Your task to perform on an android device: change keyboard looks Image 0: 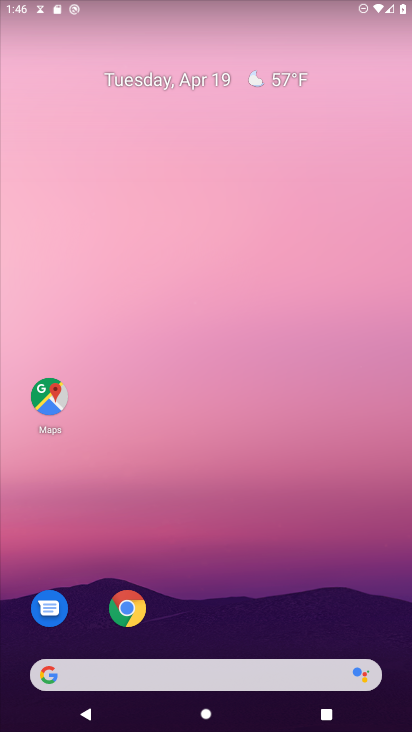
Step 0: drag from (192, 596) to (141, 55)
Your task to perform on an android device: change keyboard looks Image 1: 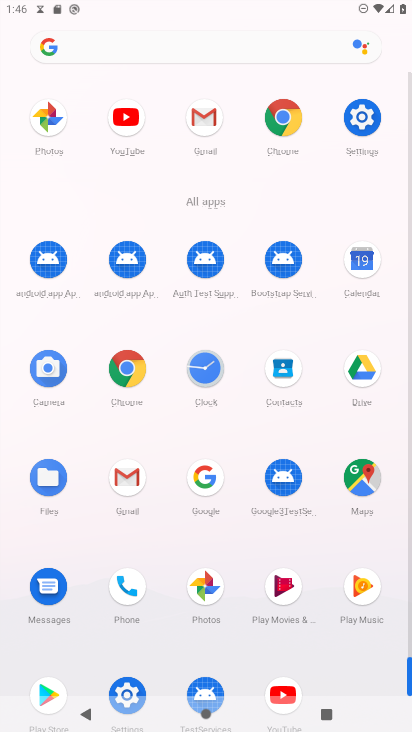
Step 1: click (359, 103)
Your task to perform on an android device: change keyboard looks Image 2: 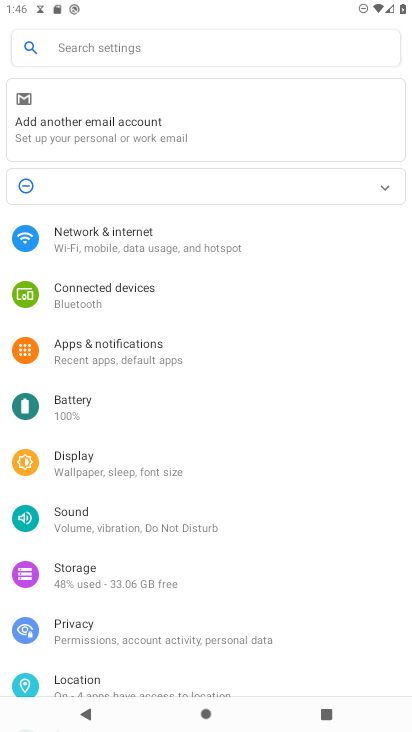
Step 2: drag from (148, 552) to (162, 126)
Your task to perform on an android device: change keyboard looks Image 3: 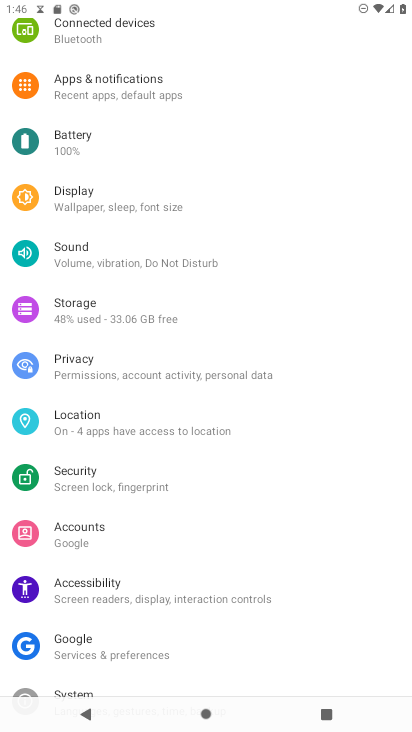
Step 3: drag from (158, 645) to (132, 347)
Your task to perform on an android device: change keyboard looks Image 4: 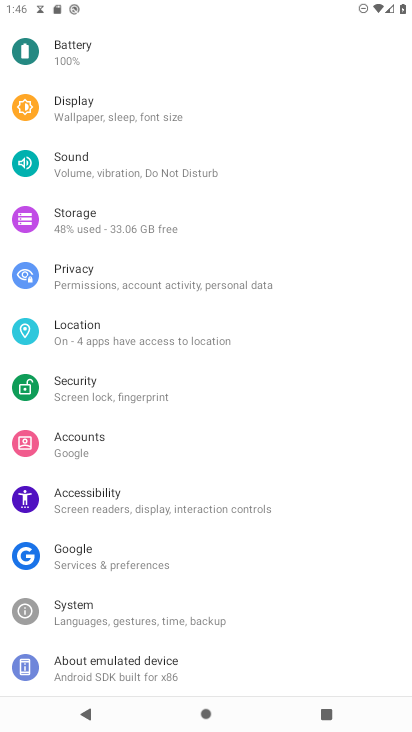
Step 4: click (112, 617)
Your task to perform on an android device: change keyboard looks Image 5: 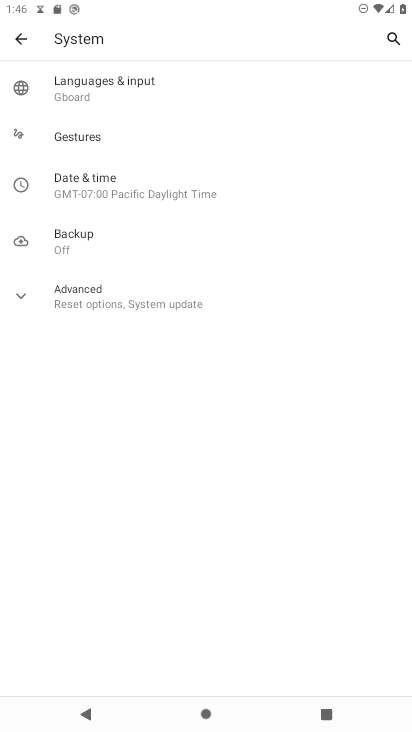
Step 5: click (87, 87)
Your task to perform on an android device: change keyboard looks Image 6: 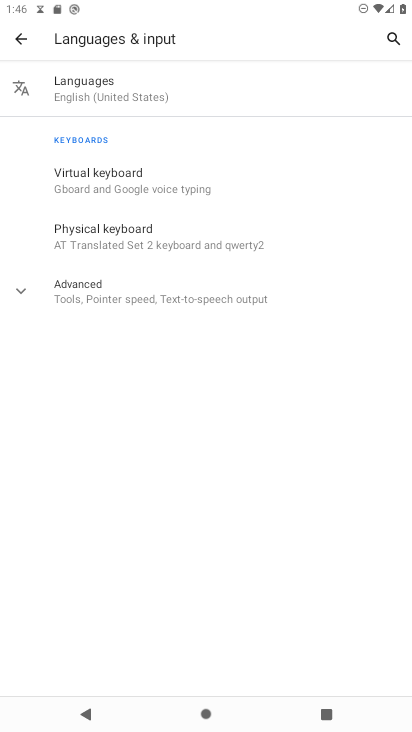
Step 6: click (89, 185)
Your task to perform on an android device: change keyboard looks Image 7: 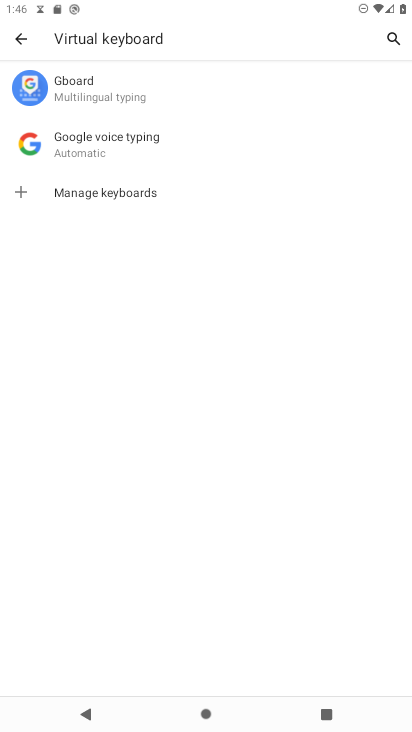
Step 7: click (92, 94)
Your task to perform on an android device: change keyboard looks Image 8: 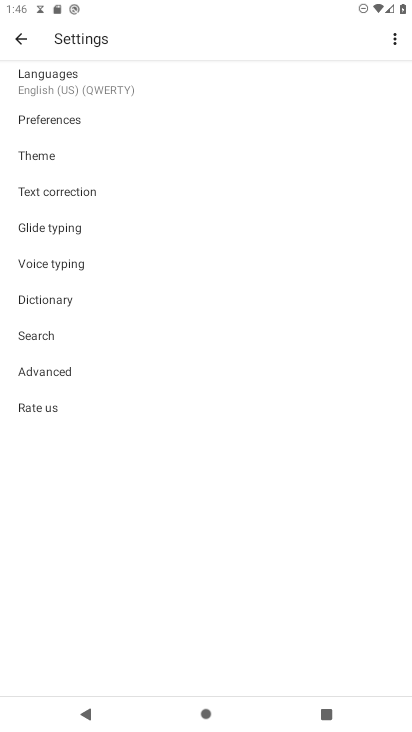
Step 8: click (49, 155)
Your task to perform on an android device: change keyboard looks Image 9: 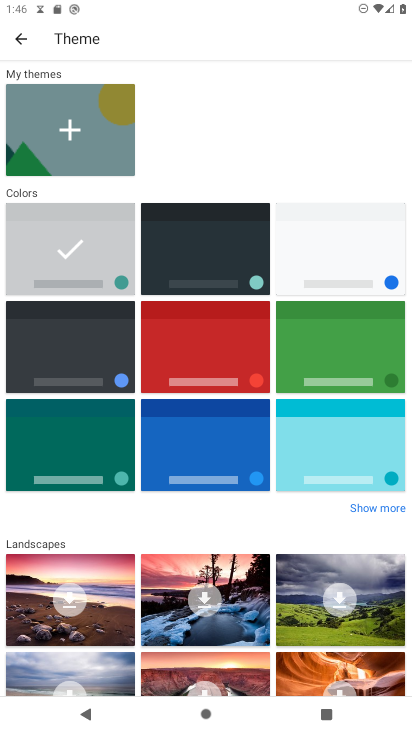
Step 9: click (201, 604)
Your task to perform on an android device: change keyboard looks Image 10: 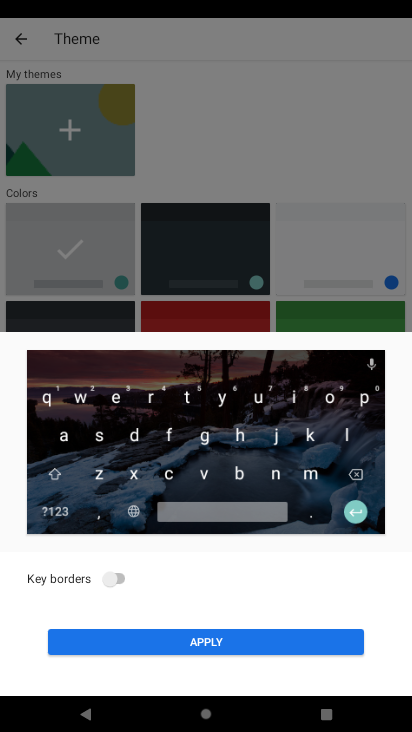
Step 10: click (109, 577)
Your task to perform on an android device: change keyboard looks Image 11: 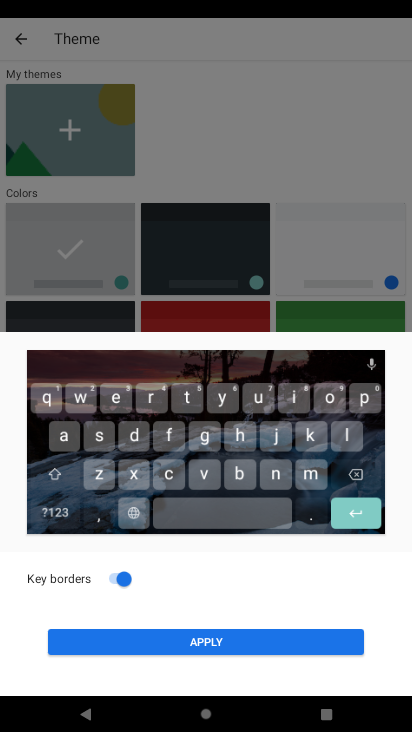
Step 11: click (116, 630)
Your task to perform on an android device: change keyboard looks Image 12: 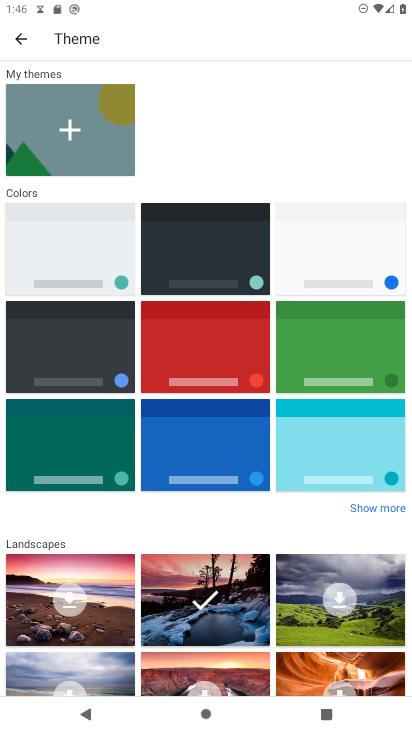
Step 12: task complete